Your task to perform on an android device: Play the last video I watched on Youtube Image 0: 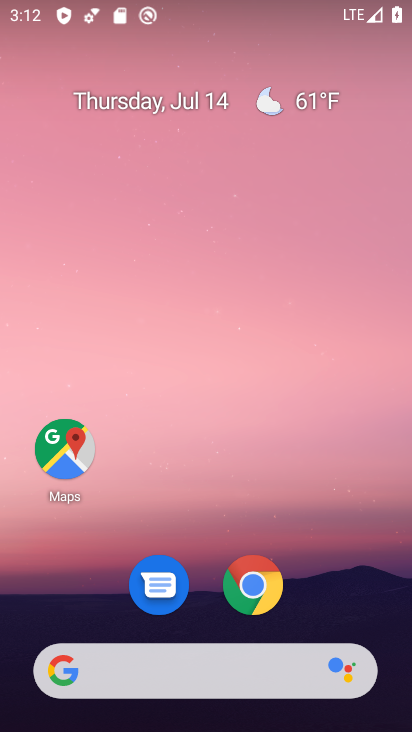
Step 0: drag from (335, 599) to (357, 0)
Your task to perform on an android device: Play the last video I watched on Youtube Image 1: 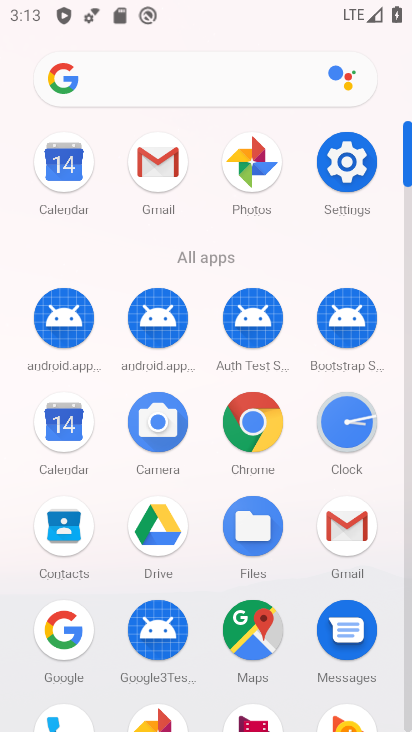
Step 1: drag from (294, 506) to (282, 161)
Your task to perform on an android device: Play the last video I watched on Youtube Image 2: 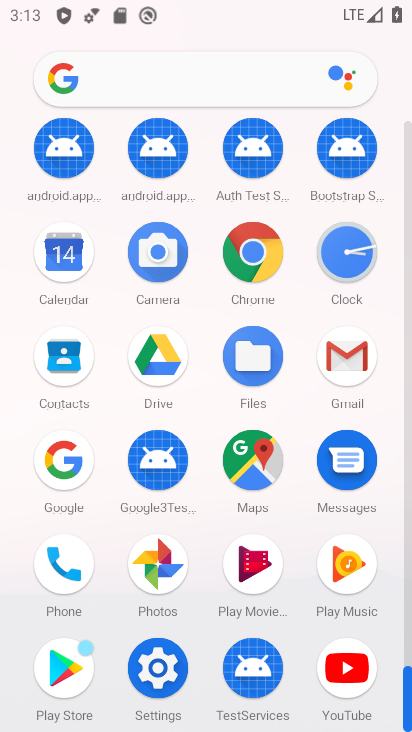
Step 2: click (347, 646)
Your task to perform on an android device: Play the last video I watched on Youtube Image 3: 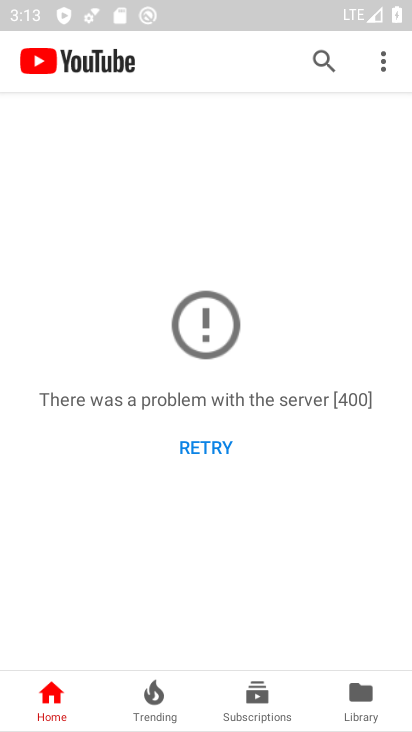
Step 3: click (359, 695)
Your task to perform on an android device: Play the last video I watched on Youtube Image 4: 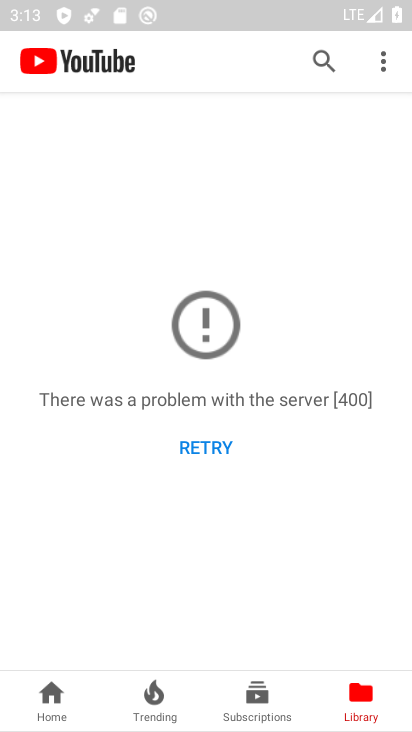
Step 4: click (359, 696)
Your task to perform on an android device: Play the last video I watched on Youtube Image 5: 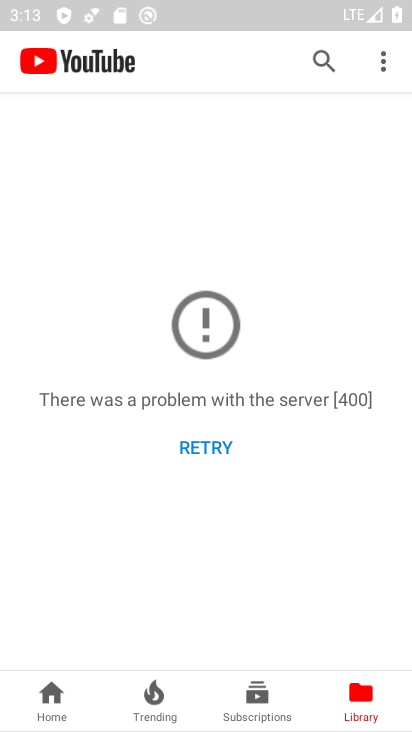
Step 5: task complete